Your task to perform on an android device: Open calendar and show me the first week of next month Image 0: 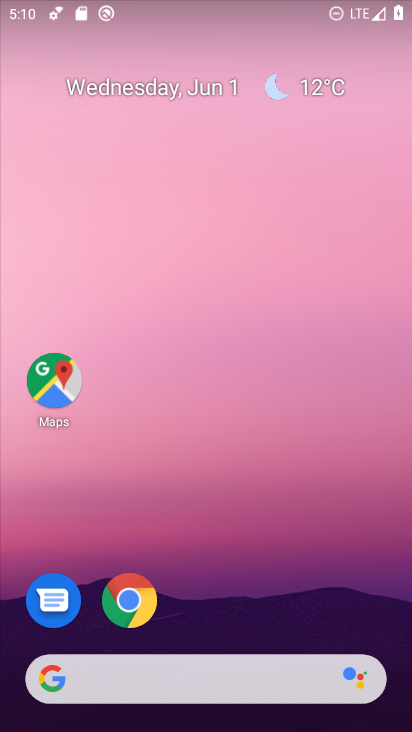
Step 0: drag from (380, 624) to (279, 70)
Your task to perform on an android device: Open calendar and show me the first week of next month Image 1: 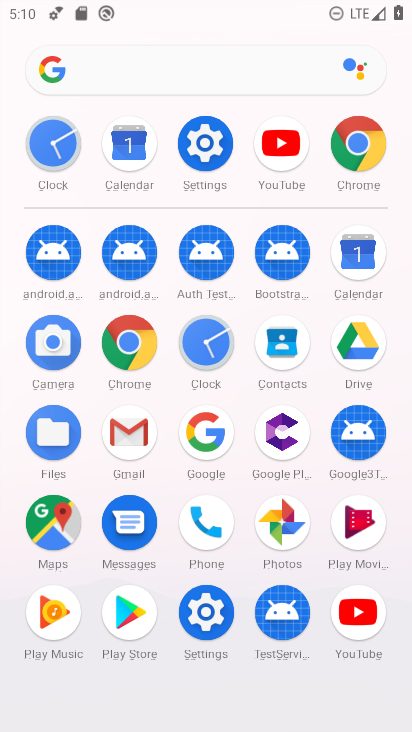
Step 1: click (356, 249)
Your task to perform on an android device: Open calendar and show me the first week of next month Image 2: 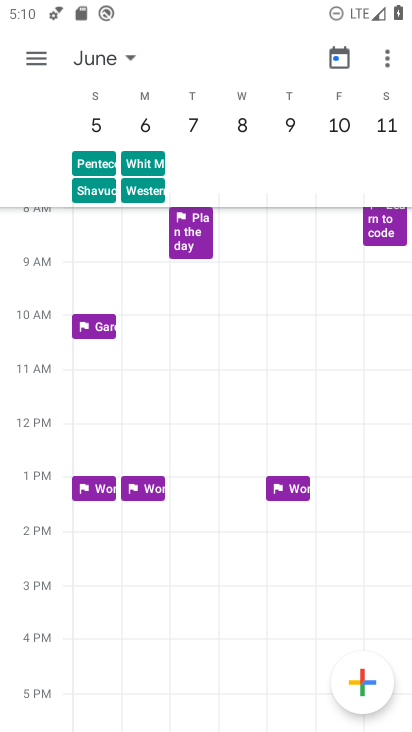
Step 2: click (136, 57)
Your task to perform on an android device: Open calendar and show me the first week of next month Image 3: 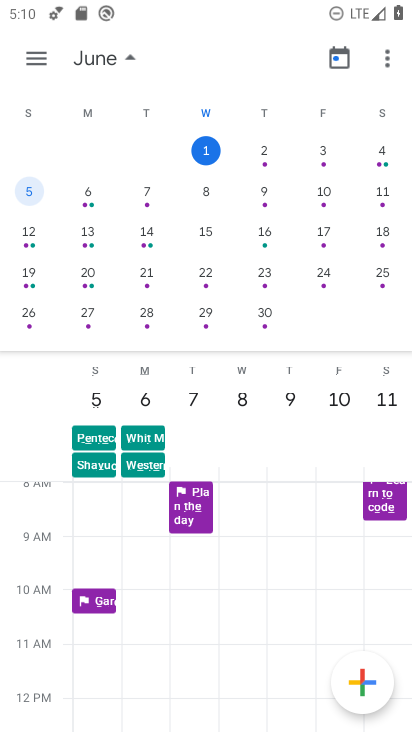
Step 3: drag from (376, 255) to (38, 271)
Your task to perform on an android device: Open calendar and show me the first week of next month Image 4: 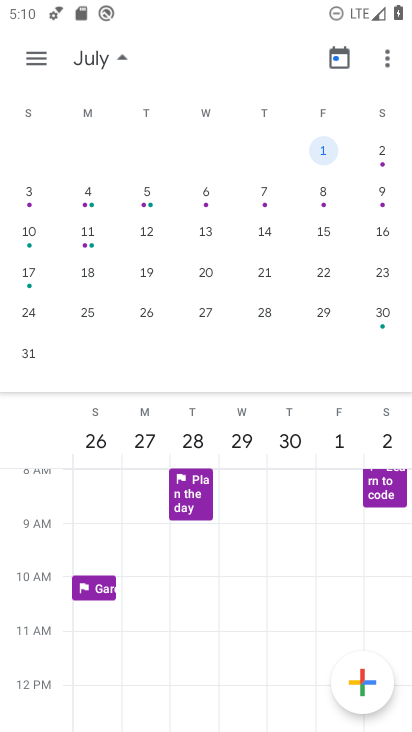
Step 4: click (24, 192)
Your task to perform on an android device: Open calendar and show me the first week of next month Image 5: 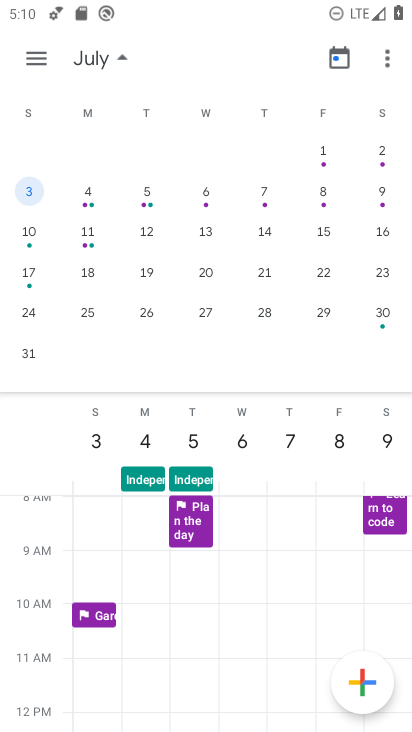
Step 5: task complete